Your task to perform on an android device: Open Chrome and go to the settings page Image 0: 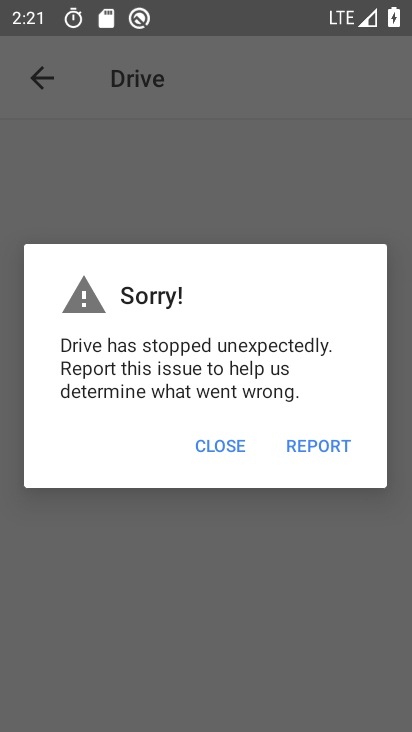
Step 0: press home button
Your task to perform on an android device: Open Chrome and go to the settings page Image 1: 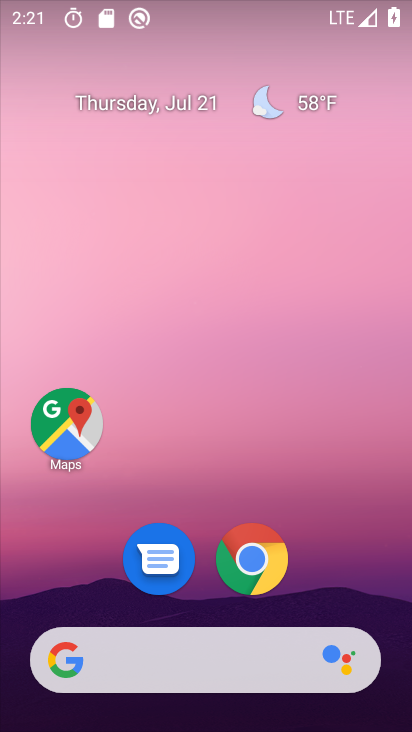
Step 1: drag from (353, 568) to (371, 109)
Your task to perform on an android device: Open Chrome and go to the settings page Image 2: 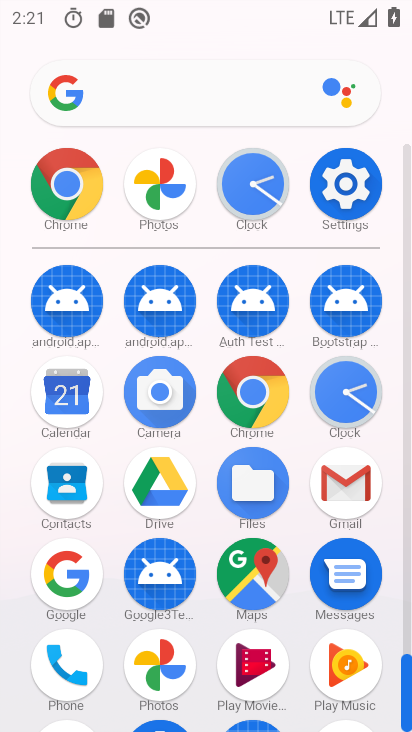
Step 2: click (261, 389)
Your task to perform on an android device: Open Chrome and go to the settings page Image 3: 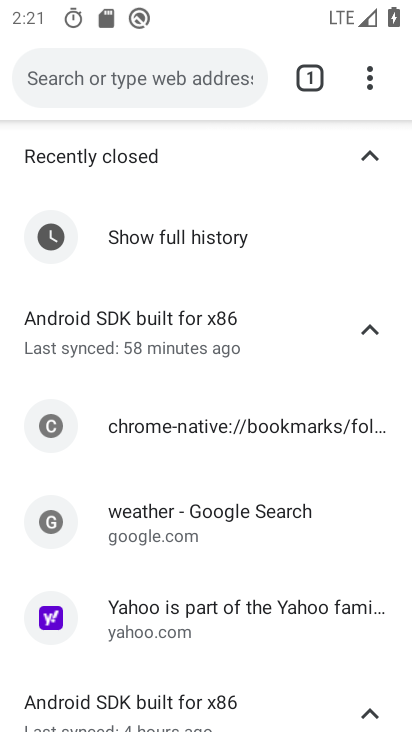
Step 3: click (369, 92)
Your task to perform on an android device: Open Chrome and go to the settings page Image 4: 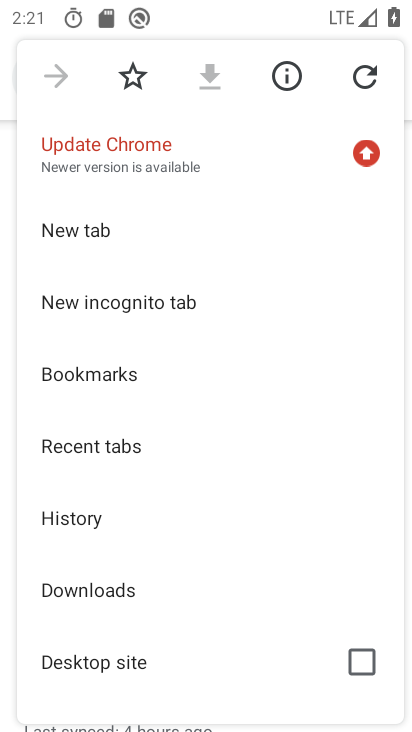
Step 4: drag from (265, 501) to (266, 388)
Your task to perform on an android device: Open Chrome and go to the settings page Image 5: 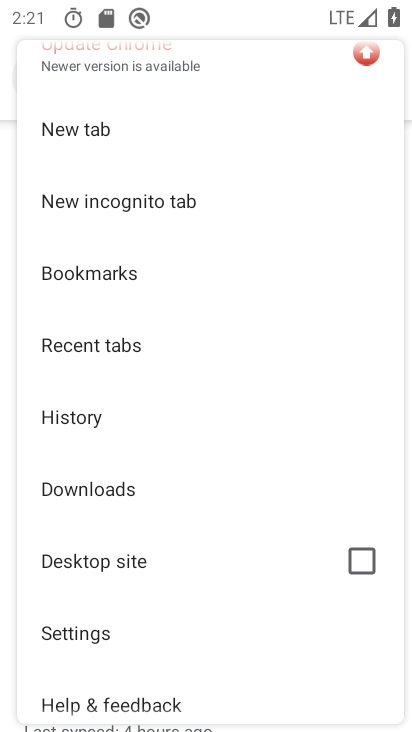
Step 5: drag from (235, 542) to (253, 409)
Your task to perform on an android device: Open Chrome and go to the settings page Image 6: 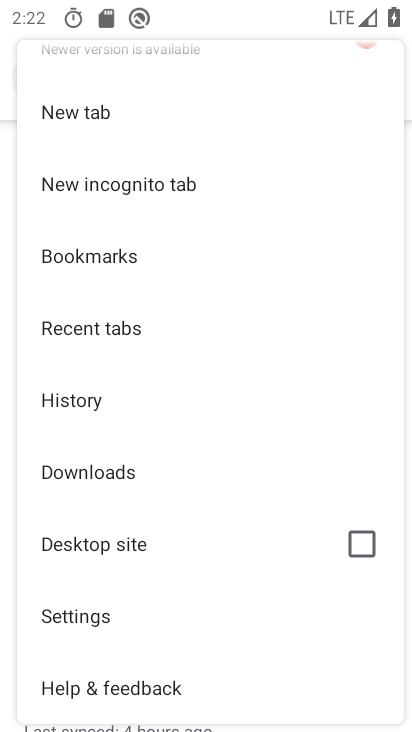
Step 6: click (119, 624)
Your task to perform on an android device: Open Chrome and go to the settings page Image 7: 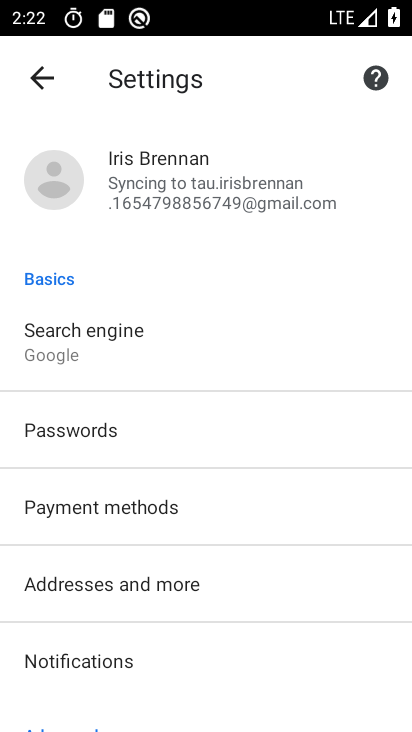
Step 7: task complete